Your task to perform on an android device: Open Chrome and go to settings Image 0: 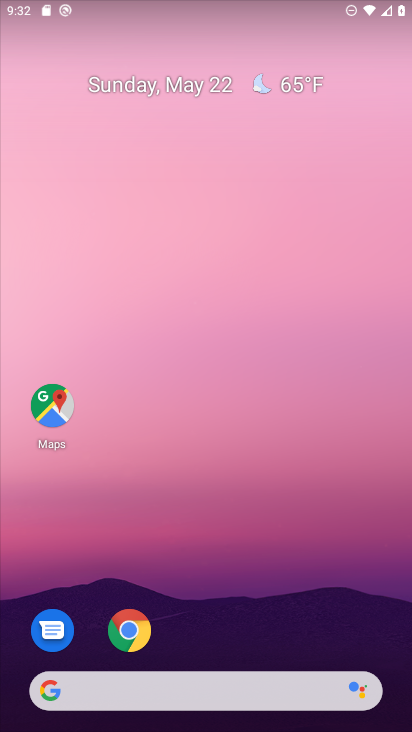
Step 0: press home button
Your task to perform on an android device: Open Chrome and go to settings Image 1: 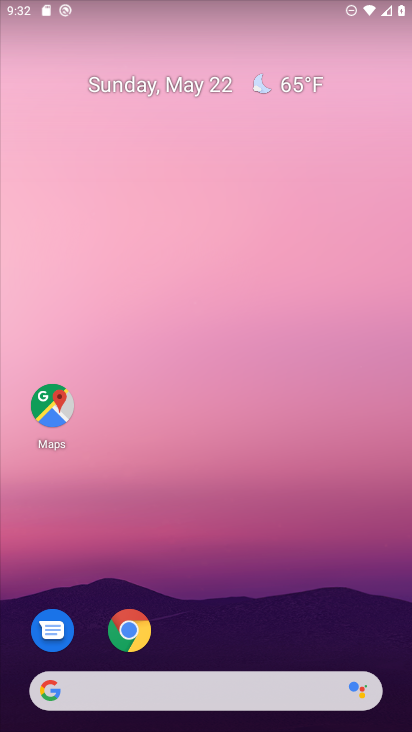
Step 1: click (126, 628)
Your task to perform on an android device: Open Chrome and go to settings Image 2: 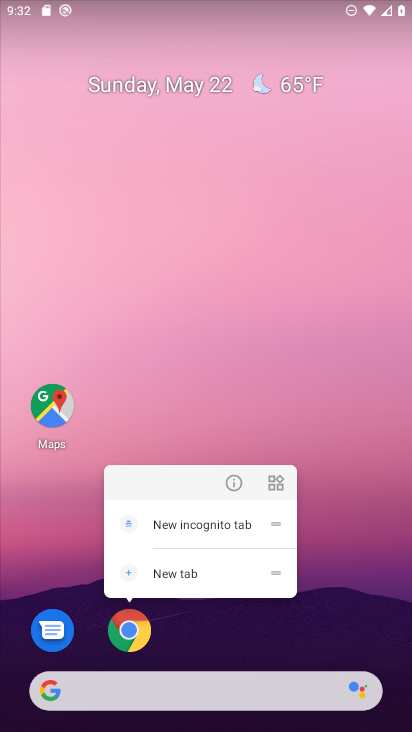
Step 2: click (134, 630)
Your task to perform on an android device: Open Chrome and go to settings Image 3: 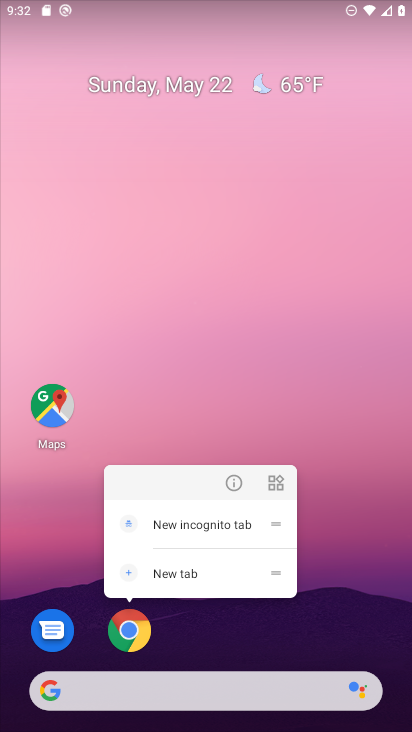
Step 3: click (135, 633)
Your task to perform on an android device: Open Chrome and go to settings Image 4: 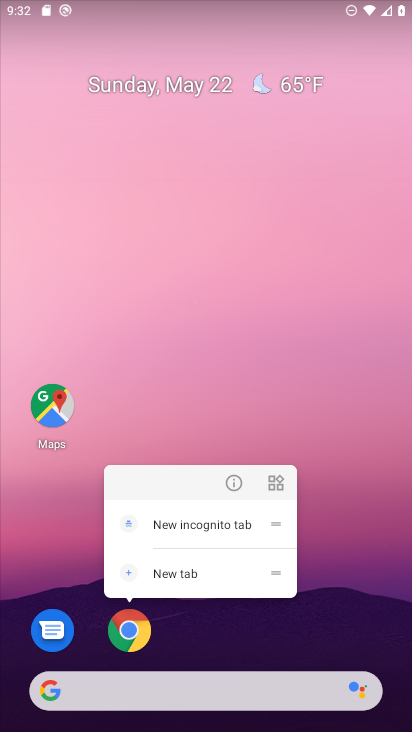
Step 4: click (134, 646)
Your task to perform on an android device: Open Chrome and go to settings Image 5: 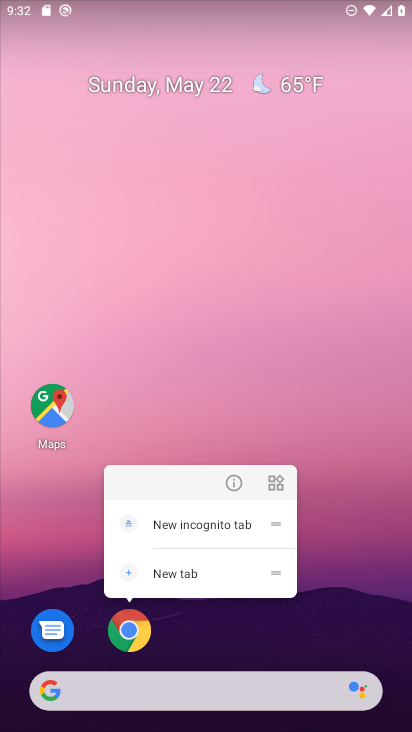
Step 5: click (142, 634)
Your task to perform on an android device: Open Chrome and go to settings Image 6: 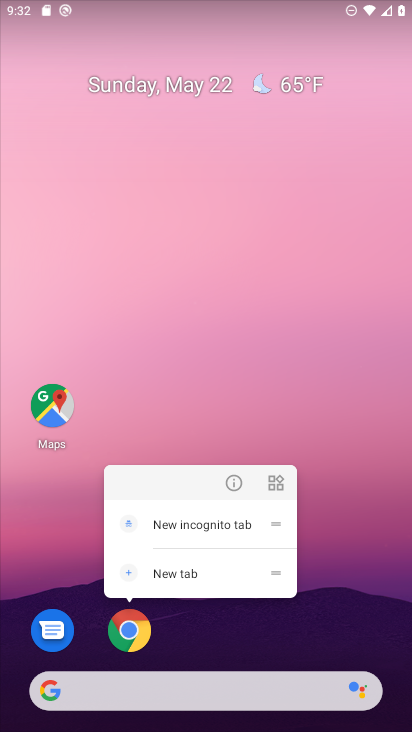
Step 6: click (136, 632)
Your task to perform on an android device: Open Chrome and go to settings Image 7: 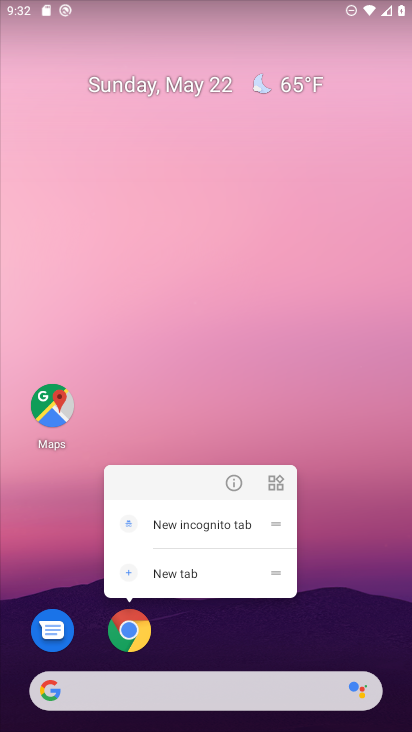
Step 7: click (129, 629)
Your task to perform on an android device: Open Chrome and go to settings Image 8: 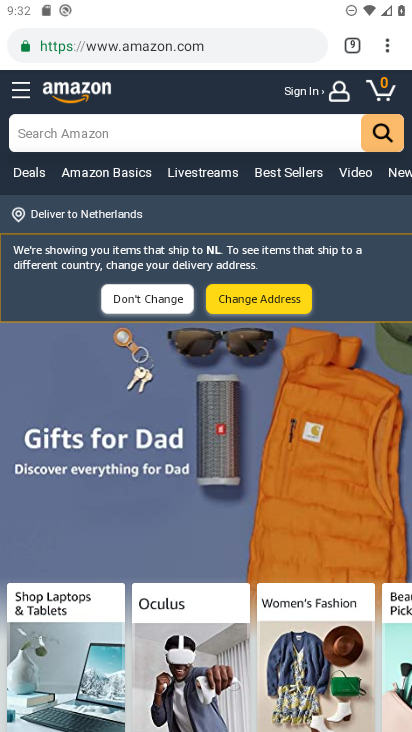
Step 8: task complete